Your task to perform on an android device: check the backup settings in the google photos Image 0: 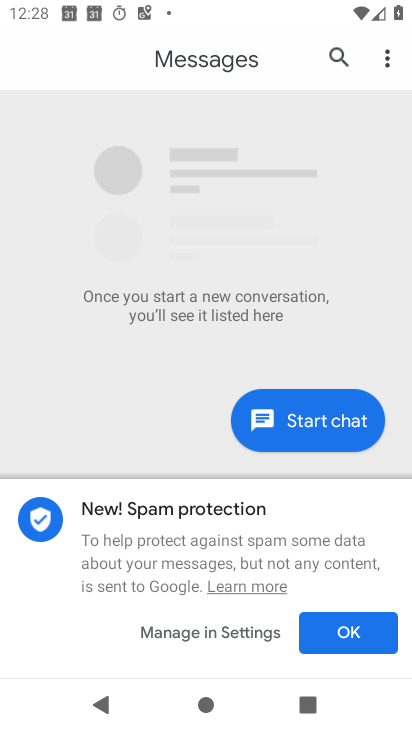
Step 0: press home button
Your task to perform on an android device: check the backup settings in the google photos Image 1: 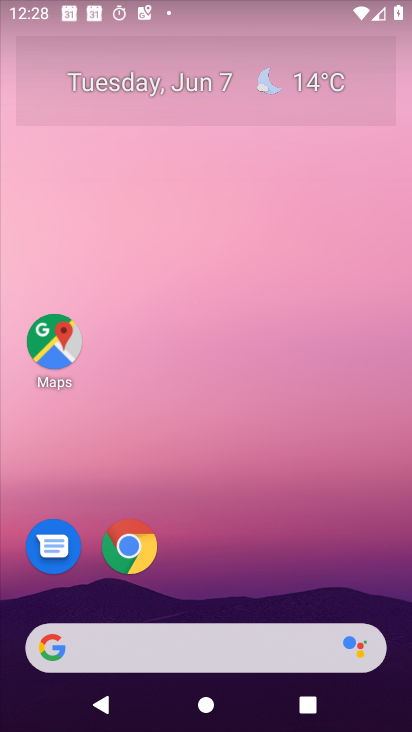
Step 1: drag from (211, 613) to (339, 71)
Your task to perform on an android device: check the backup settings in the google photos Image 2: 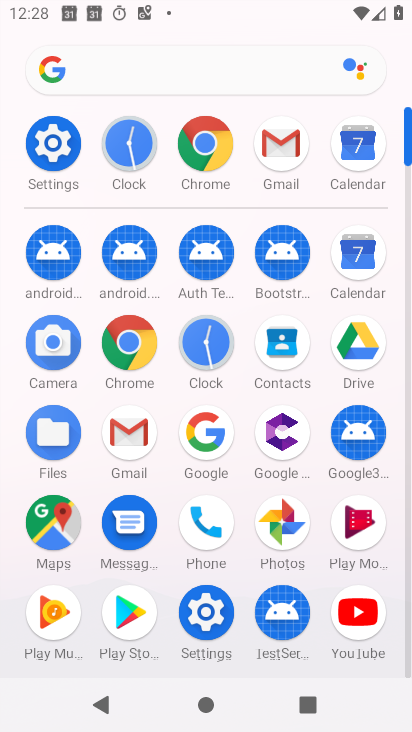
Step 2: click (280, 534)
Your task to perform on an android device: check the backup settings in the google photos Image 3: 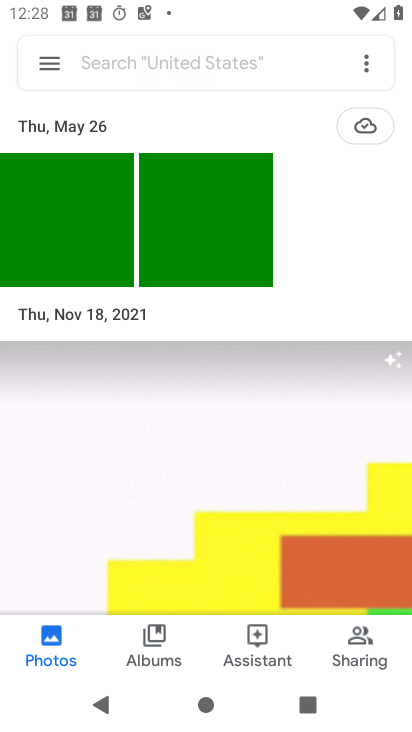
Step 3: click (38, 56)
Your task to perform on an android device: check the backup settings in the google photos Image 4: 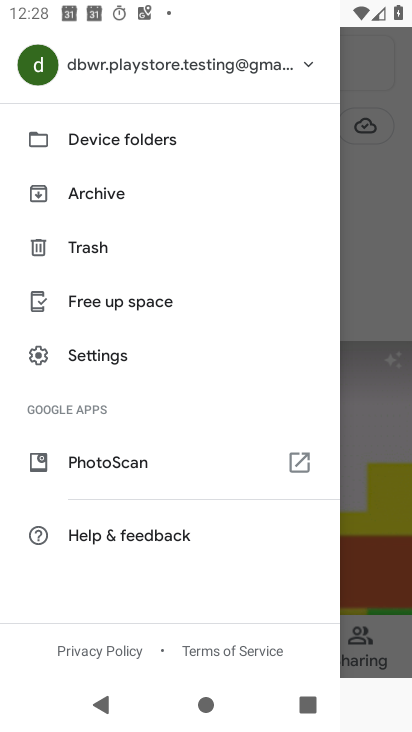
Step 4: click (107, 367)
Your task to perform on an android device: check the backup settings in the google photos Image 5: 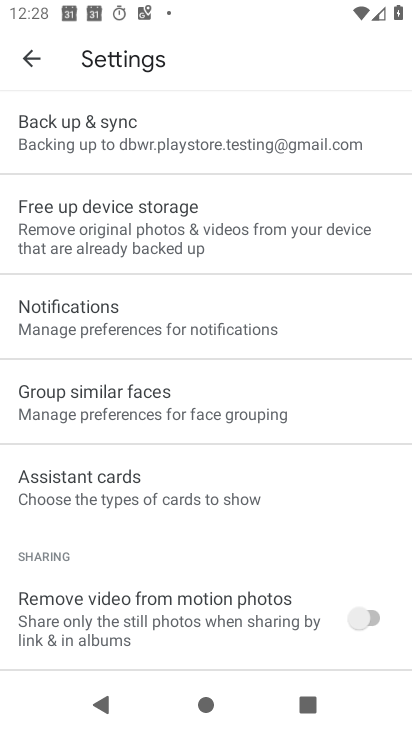
Step 5: click (77, 117)
Your task to perform on an android device: check the backup settings in the google photos Image 6: 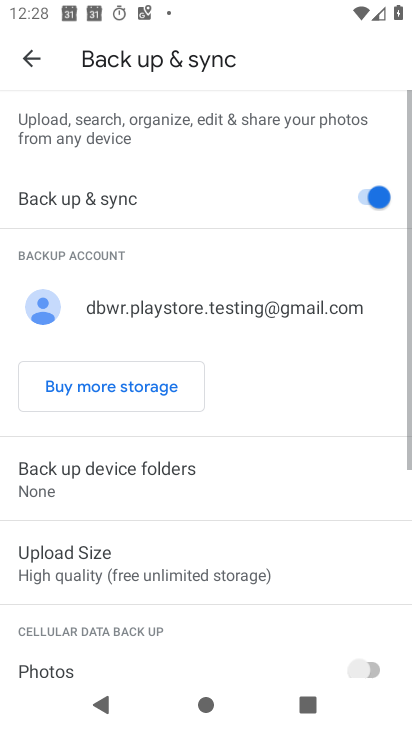
Step 6: task complete